Your task to perform on an android device: Go to calendar. Show me events next week Image 0: 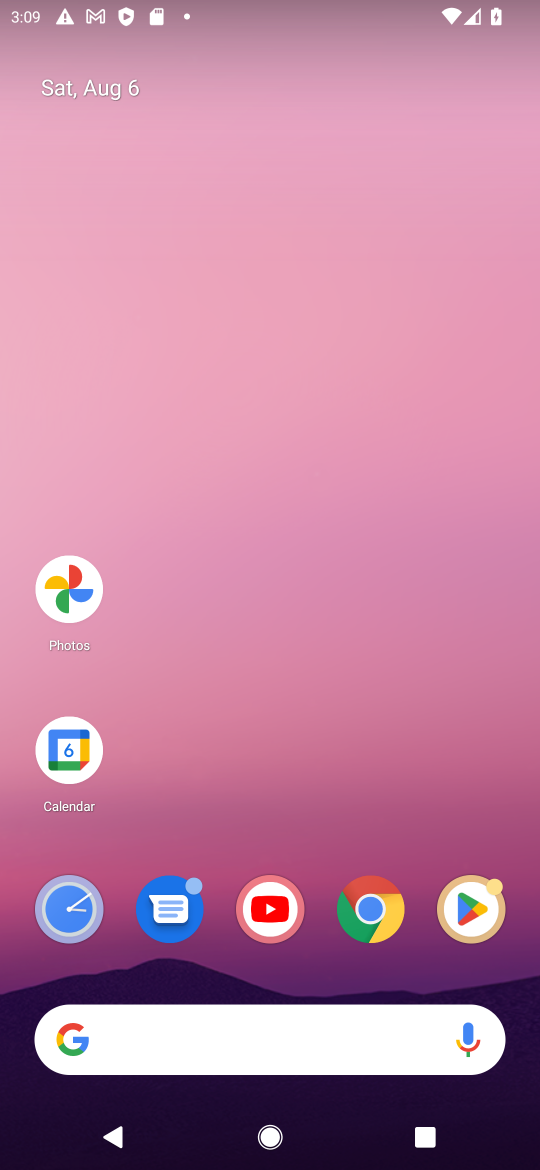
Step 0: click (65, 744)
Your task to perform on an android device: Go to calendar. Show me events next week Image 1: 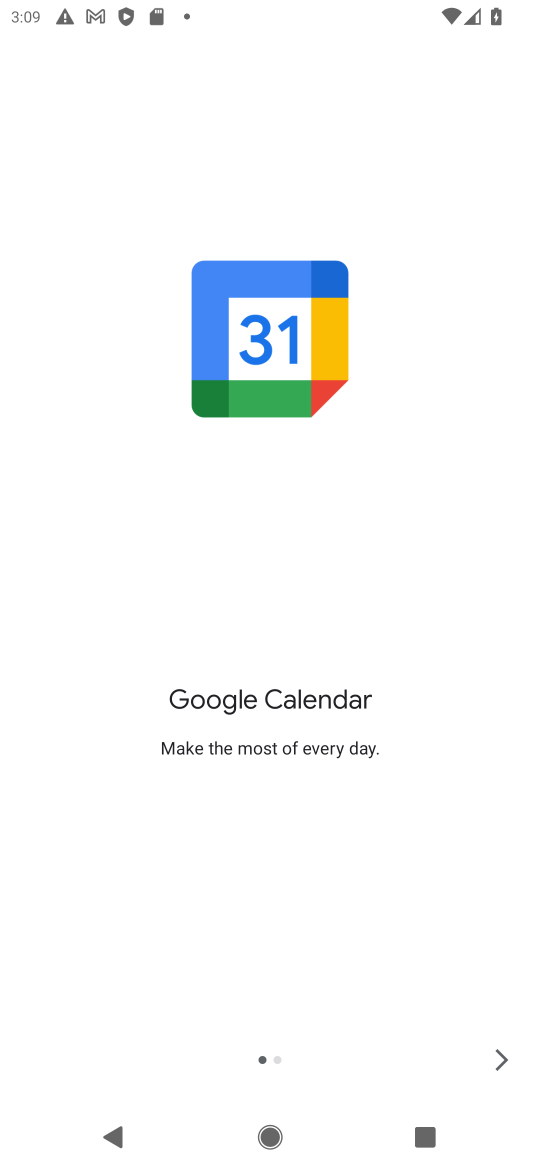
Step 1: click (496, 1060)
Your task to perform on an android device: Go to calendar. Show me events next week Image 2: 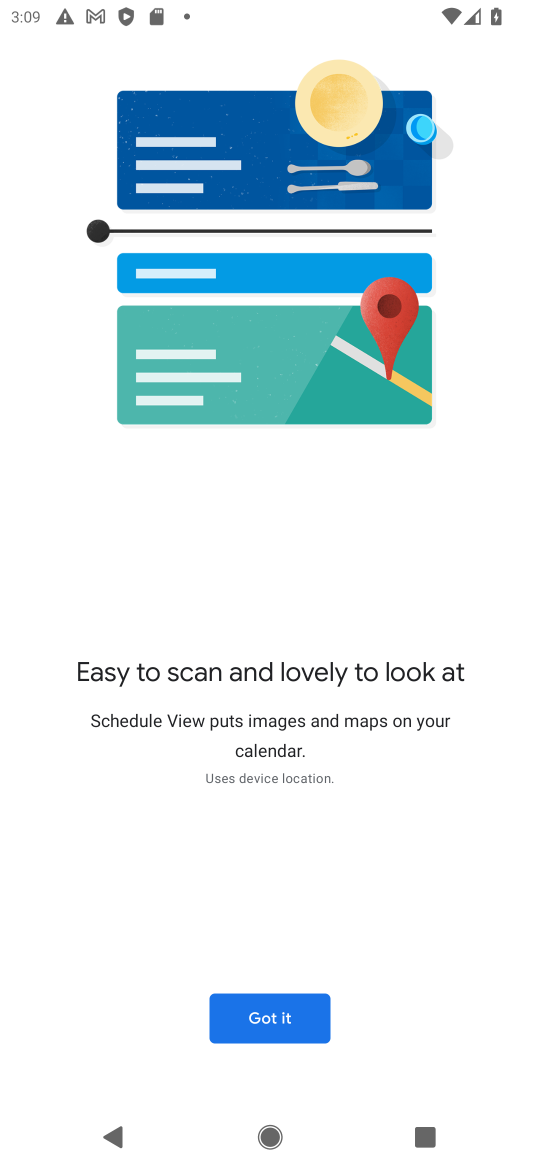
Step 2: click (264, 1022)
Your task to perform on an android device: Go to calendar. Show me events next week Image 3: 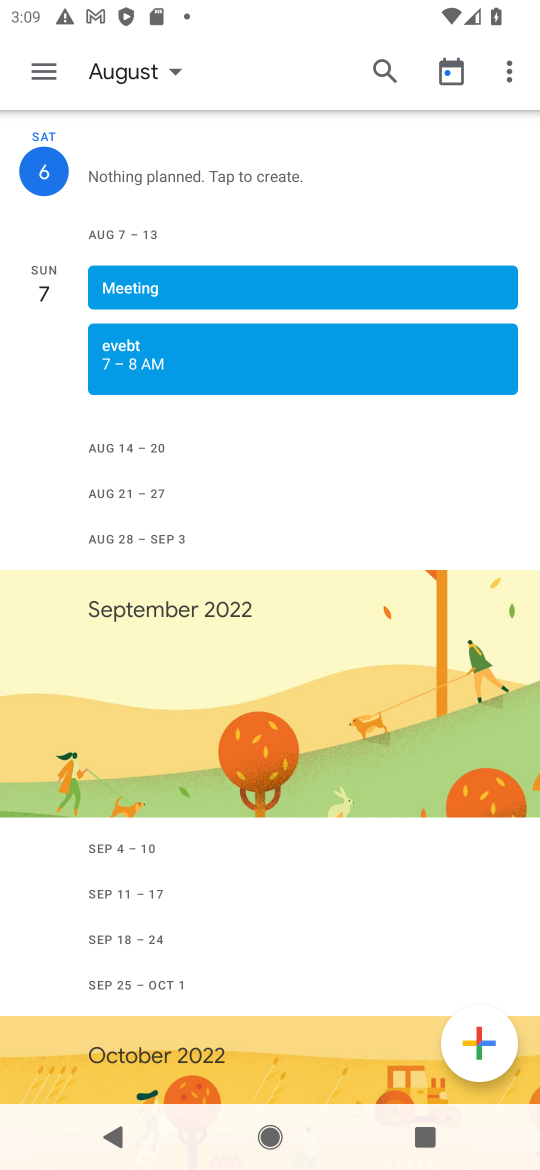
Step 3: click (32, 60)
Your task to perform on an android device: Go to calendar. Show me events next week Image 4: 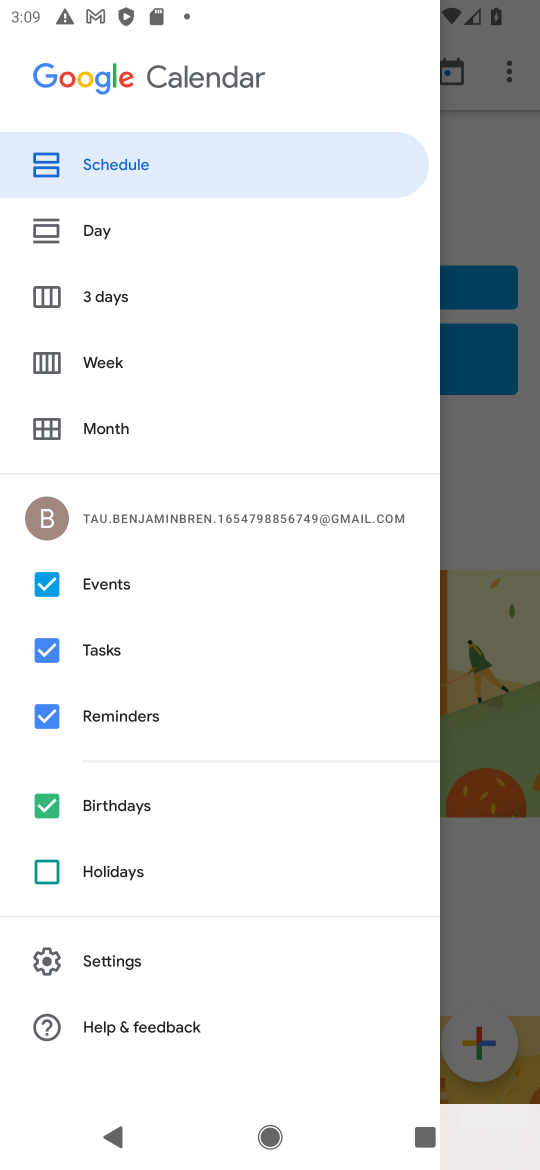
Step 4: click (104, 359)
Your task to perform on an android device: Go to calendar. Show me events next week Image 5: 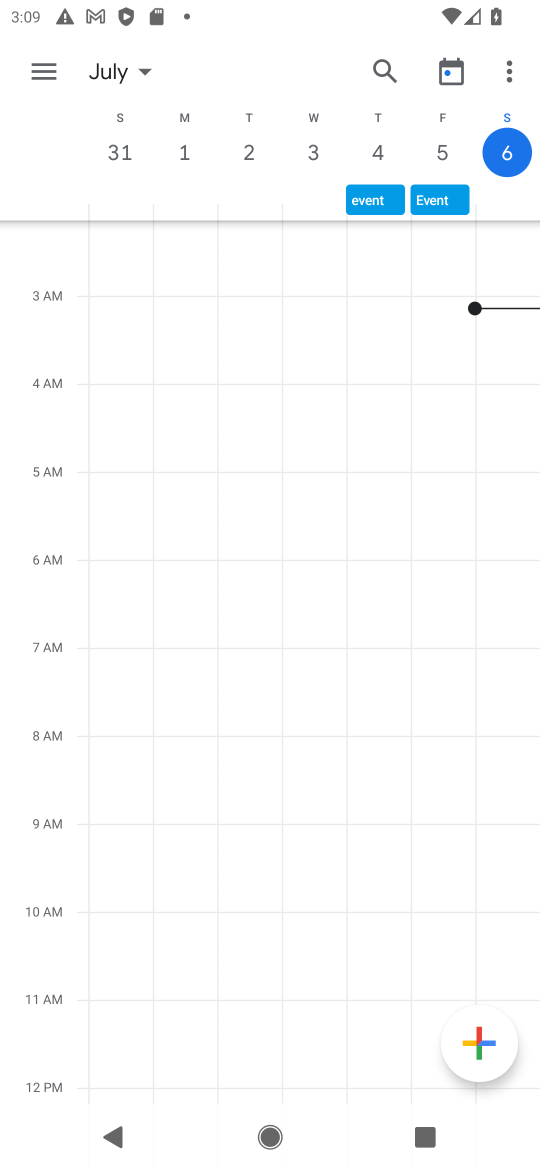
Step 5: click (142, 68)
Your task to perform on an android device: Go to calendar. Show me events next week Image 6: 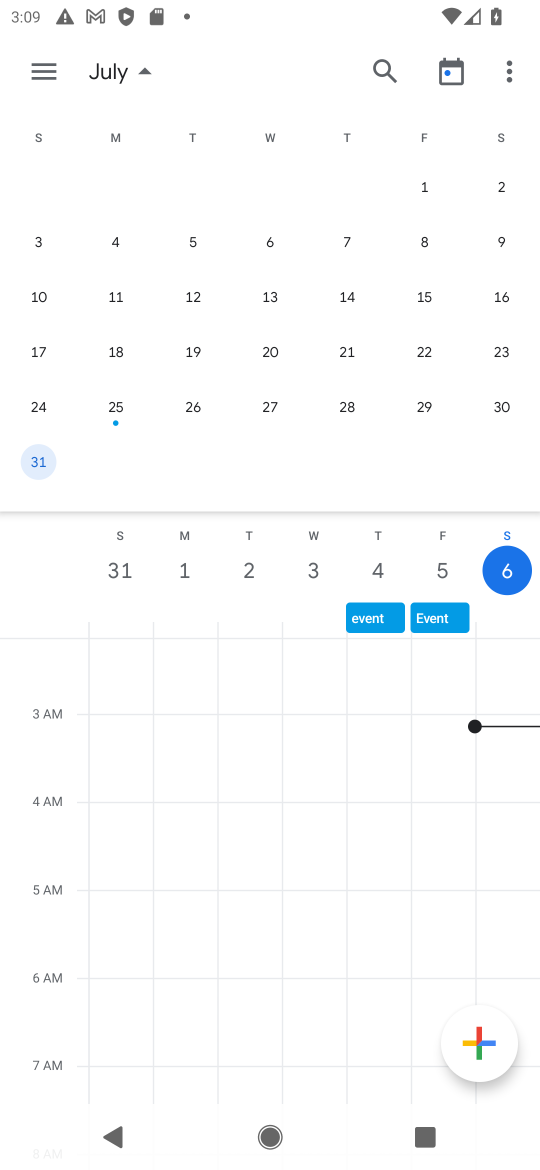
Step 6: drag from (476, 352) to (5, 261)
Your task to perform on an android device: Go to calendar. Show me events next week Image 7: 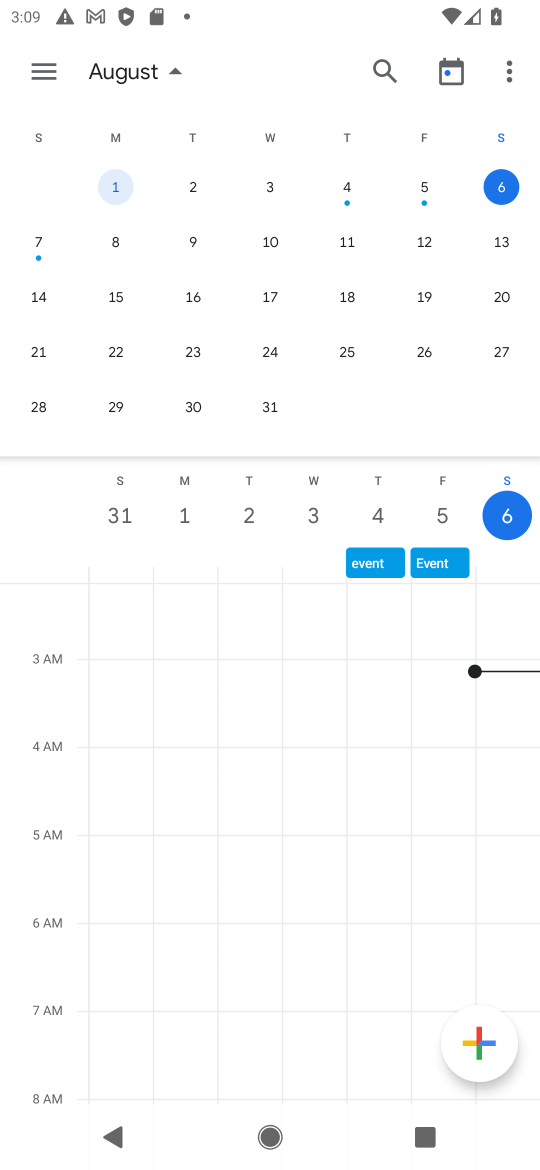
Step 7: click (120, 233)
Your task to perform on an android device: Go to calendar. Show me events next week Image 8: 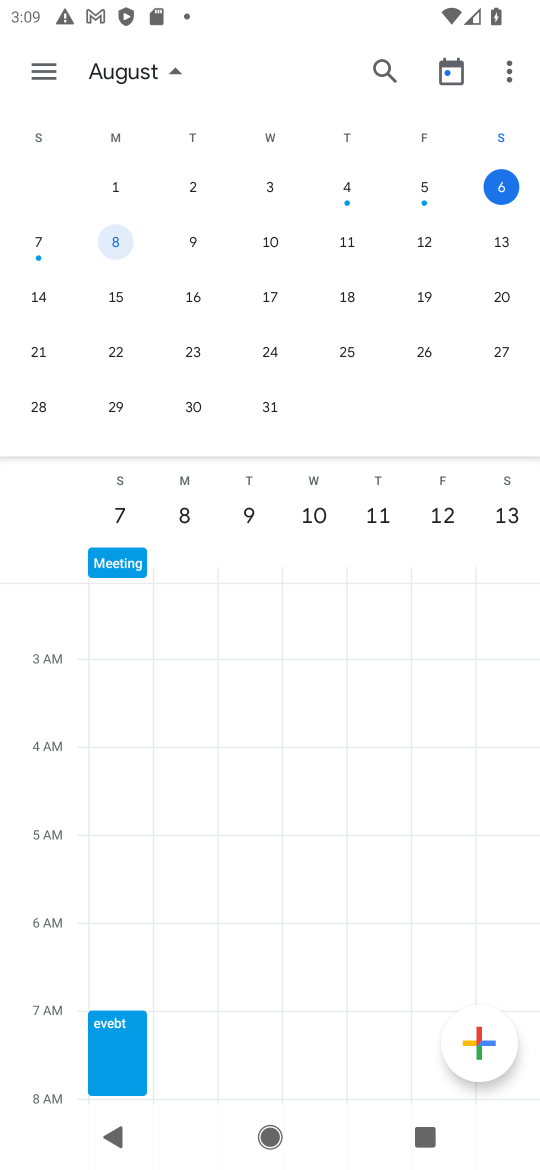
Step 8: task complete